Your task to perform on an android device: change timer sound Image 0: 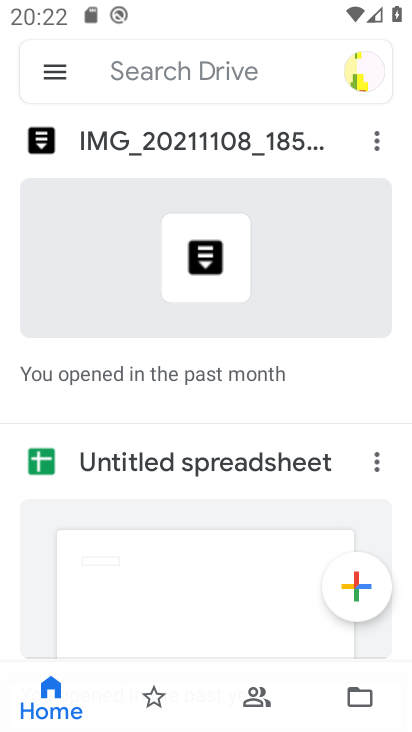
Step 0: press back button
Your task to perform on an android device: change timer sound Image 1: 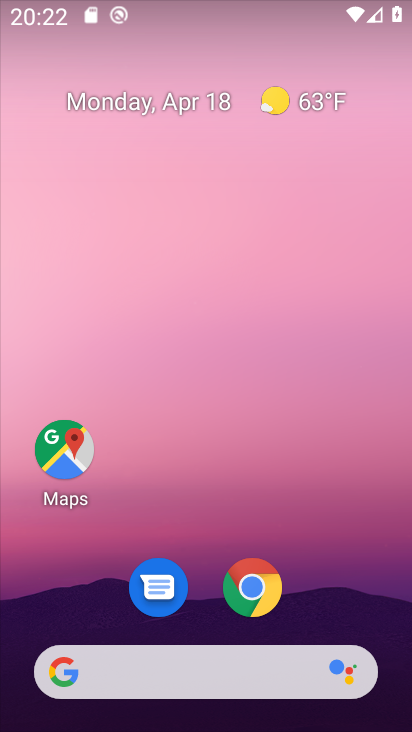
Step 1: drag from (322, 470) to (366, 116)
Your task to perform on an android device: change timer sound Image 2: 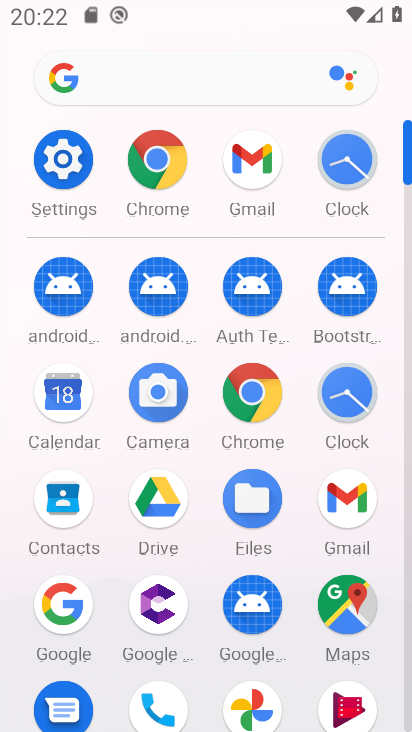
Step 2: click (346, 219)
Your task to perform on an android device: change timer sound Image 3: 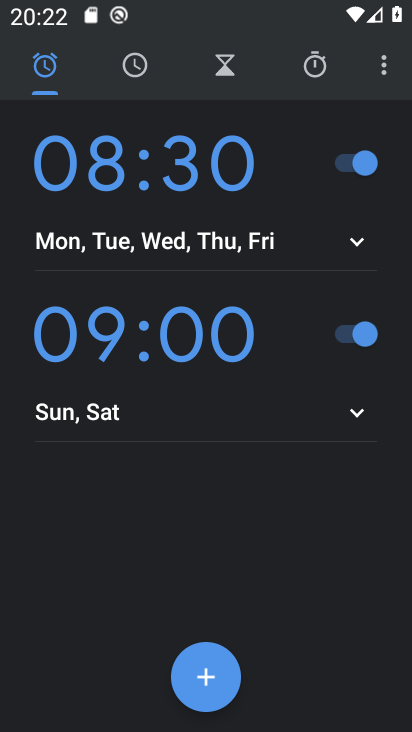
Step 3: click (379, 84)
Your task to perform on an android device: change timer sound Image 4: 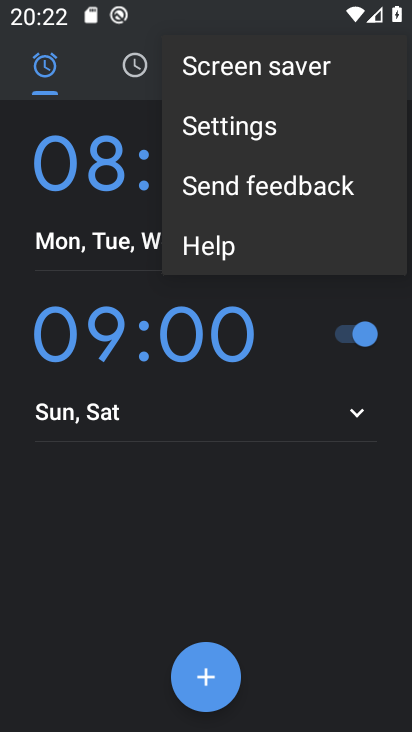
Step 4: click (328, 118)
Your task to perform on an android device: change timer sound Image 5: 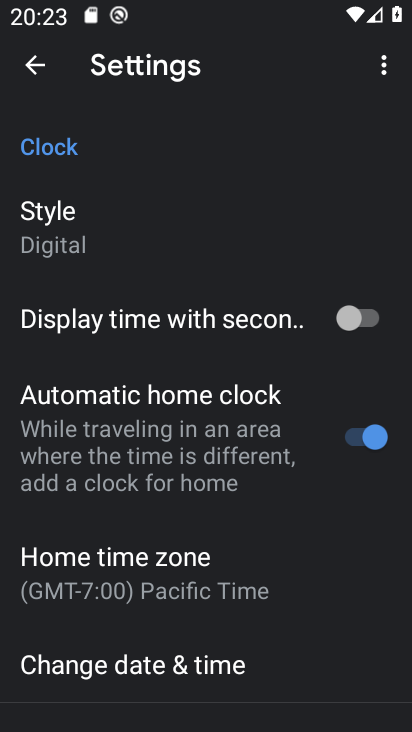
Step 5: drag from (238, 583) to (267, 366)
Your task to perform on an android device: change timer sound Image 6: 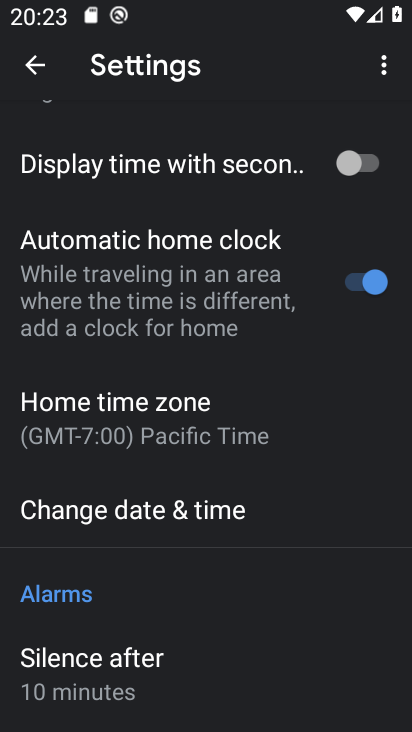
Step 6: drag from (206, 630) to (268, 128)
Your task to perform on an android device: change timer sound Image 7: 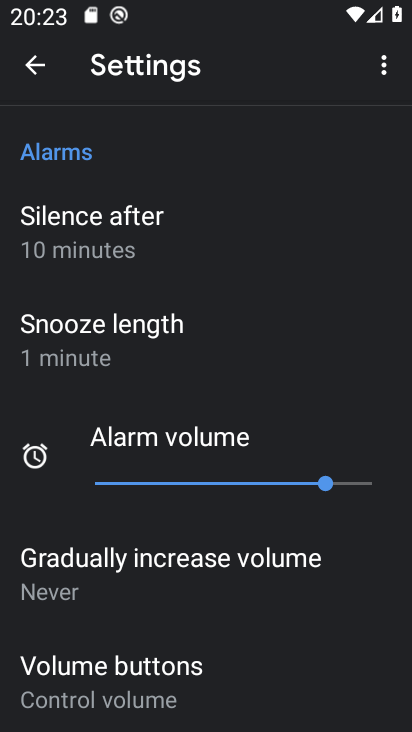
Step 7: drag from (178, 611) to (191, 361)
Your task to perform on an android device: change timer sound Image 8: 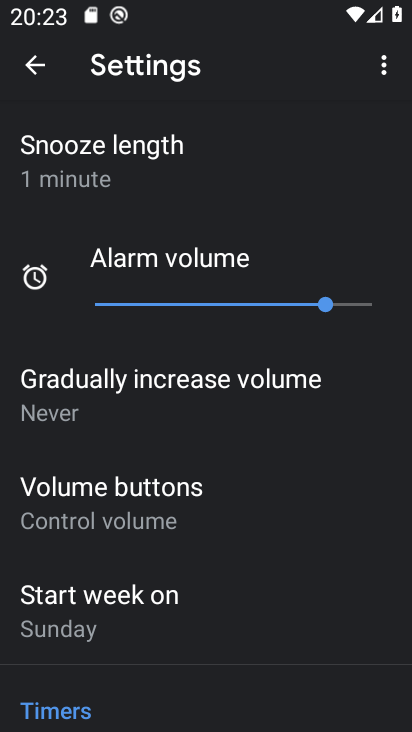
Step 8: drag from (187, 605) to (296, 166)
Your task to perform on an android device: change timer sound Image 9: 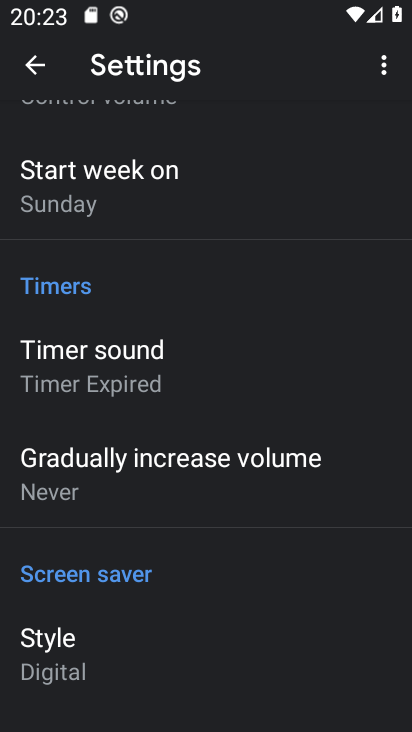
Step 9: click (209, 383)
Your task to perform on an android device: change timer sound Image 10: 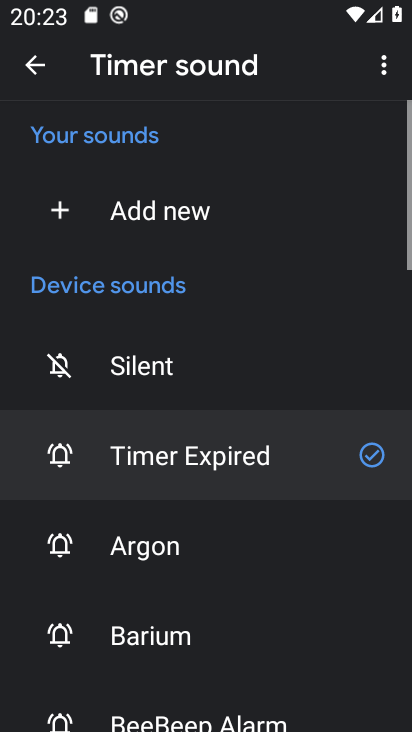
Step 10: click (175, 634)
Your task to perform on an android device: change timer sound Image 11: 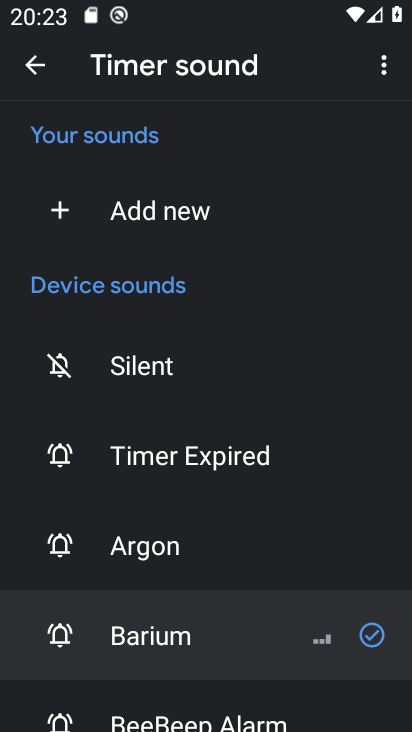
Step 11: task complete